Your task to perform on an android device: Search for logitech g pro on target.com, select the first entry, and add it to the cart. Image 0: 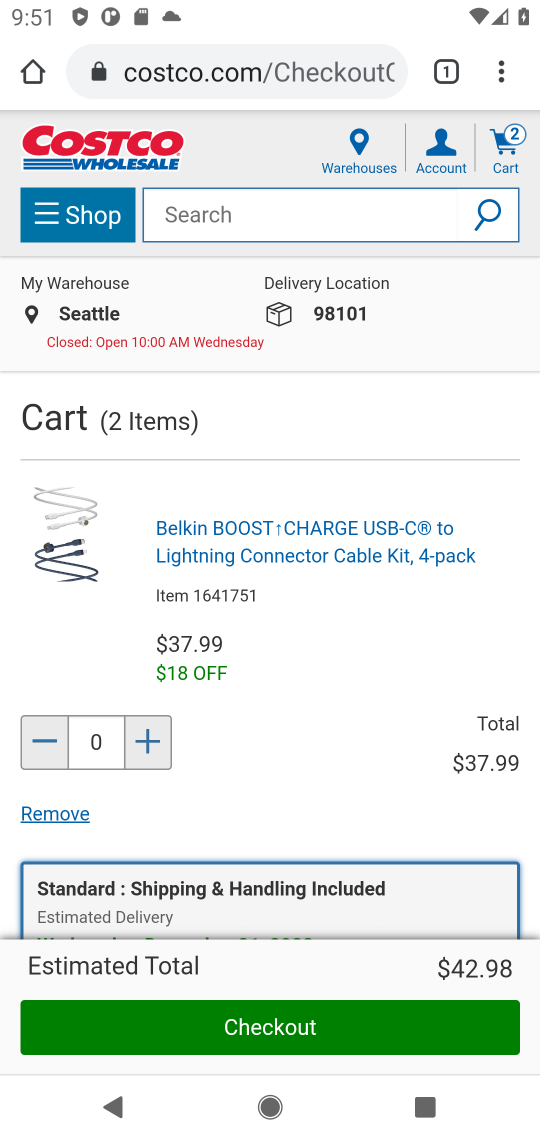
Step 0: task complete